Your task to perform on an android device: Go to Reddit.com Image 0: 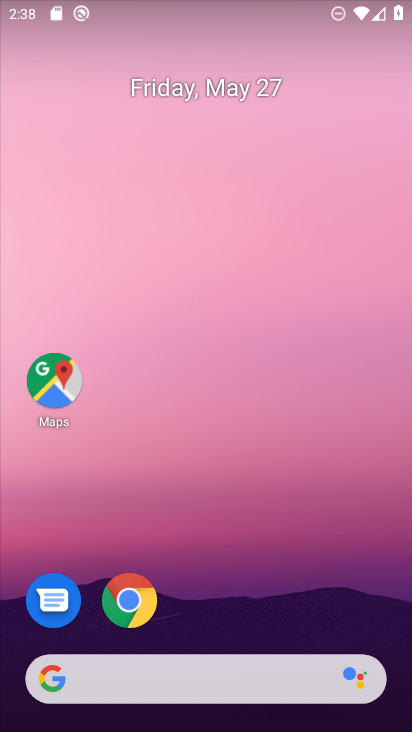
Step 0: click (129, 598)
Your task to perform on an android device: Go to Reddit.com Image 1: 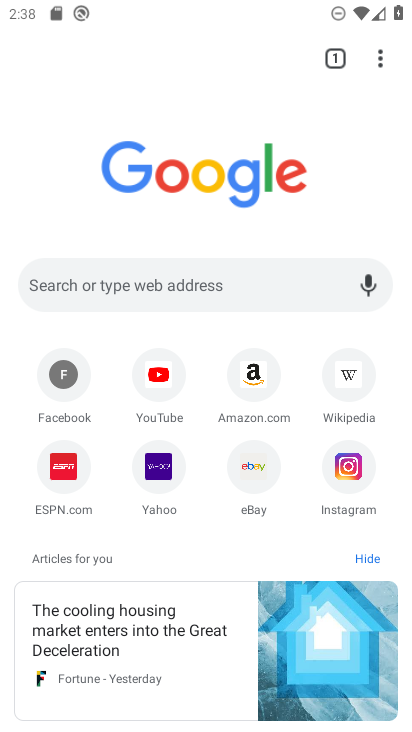
Step 1: click (207, 288)
Your task to perform on an android device: Go to Reddit.com Image 2: 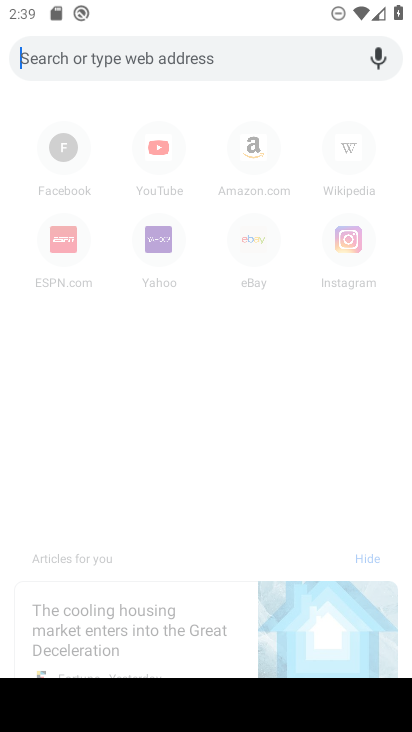
Step 2: type "Reddit.com"
Your task to perform on an android device: Go to Reddit.com Image 3: 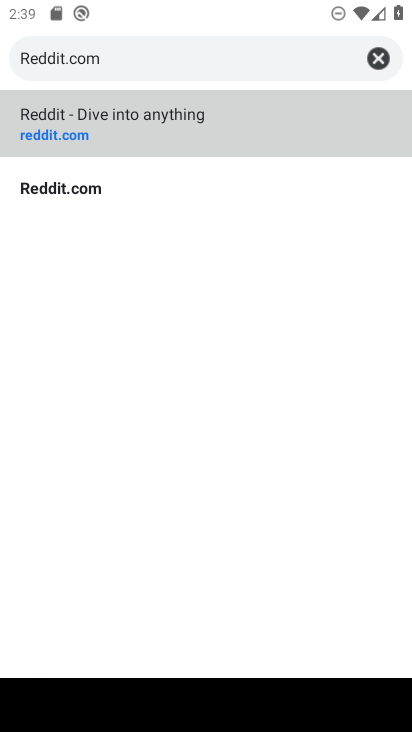
Step 3: click (117, 114)
Your task to perform on an android device: Go to Reddit.com Image 4: 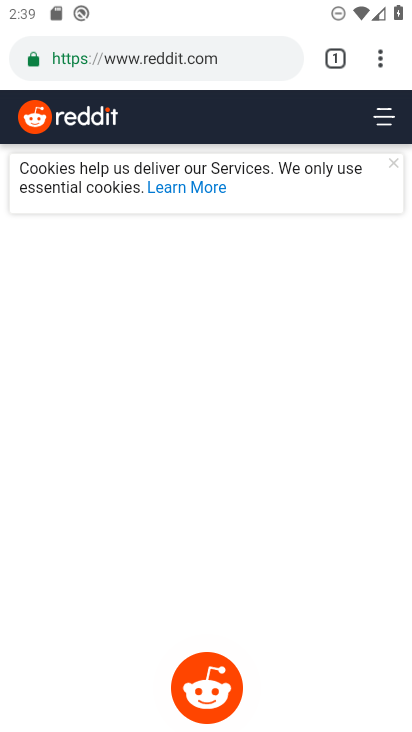
Step 4: task complete